Your task to perform on an android device: Check the weather Image 0: 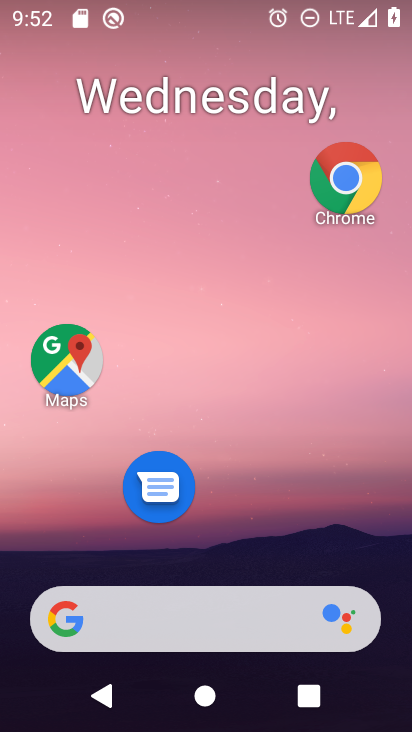
Step 0: drag from (223, 457) to (219, 118)
Your task to perform on an android device: Check the weather Image 1: 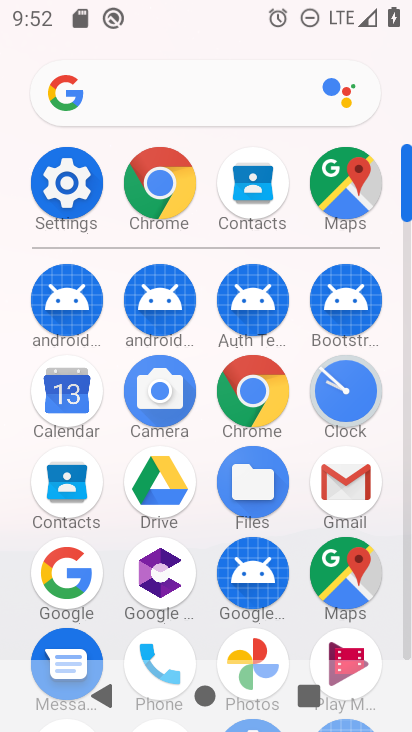
Step 1: click (74, 583)
Your task to perform on an android device: Check the weather Image 2: 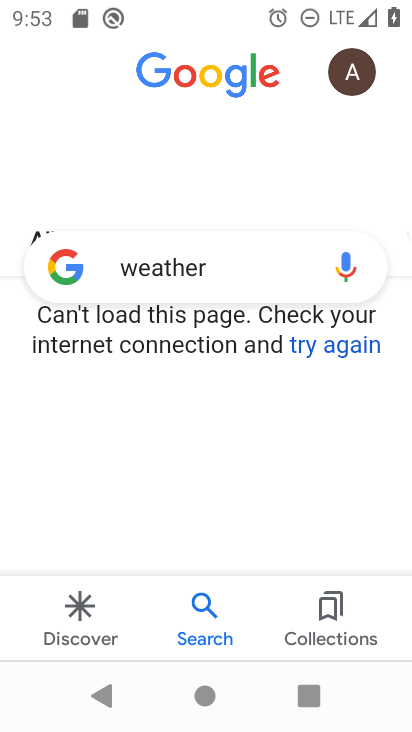
Step 2: click (347, 346)
Your task to perform on an android device: Check the weather Image 3: 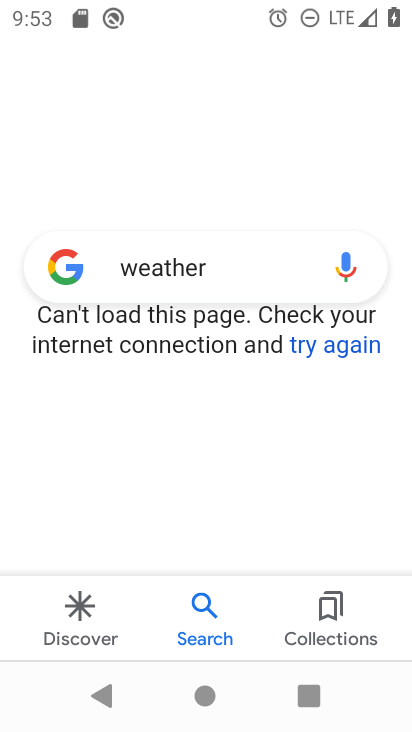
Step 3: click (347, 345)
Your task to perform on an android device: Check the weather Image 4: 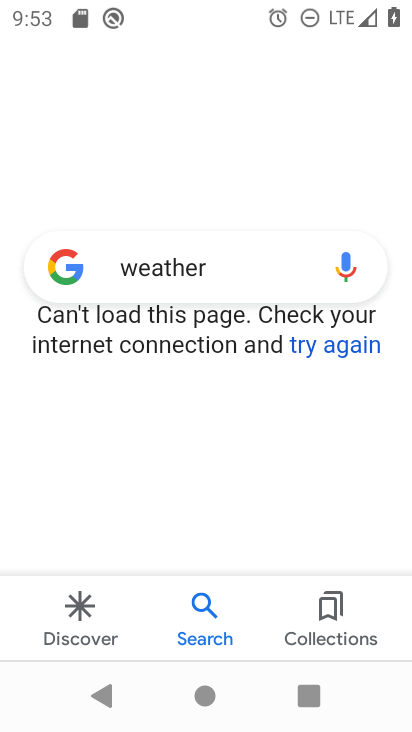
Step 4: task complete